Your task to perform on an android device: visit the assistant section in the google photos Image 0: 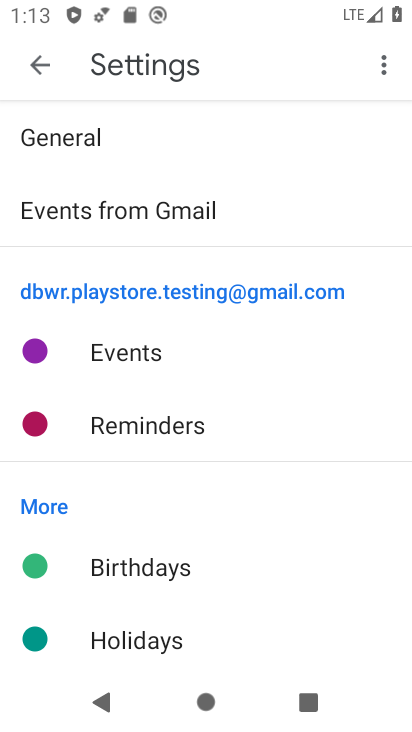
Step 0: press home button
Your task to perform on an android device: visit the assistant section in the google photos Image 1: 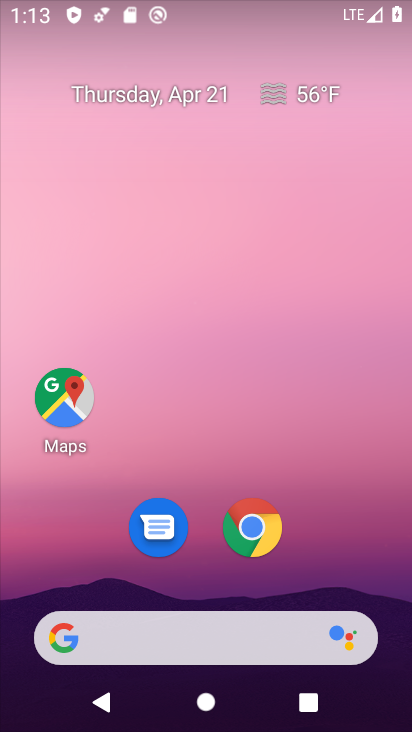
Step 1: drag from (210, 566) to (220, 164)
Your task to perform on an android device: visit the assistant section in the google photos Image 2: 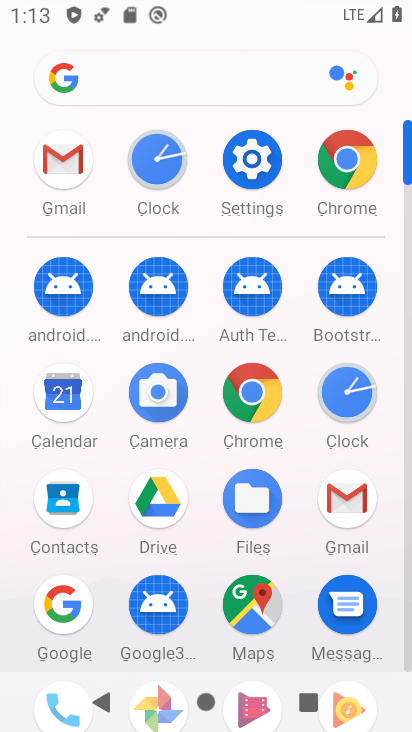
Step 2: drag from (204, 612) to (216, 414)
Your task to perform on an android device: visit the assistant section in the google photos Image 3: 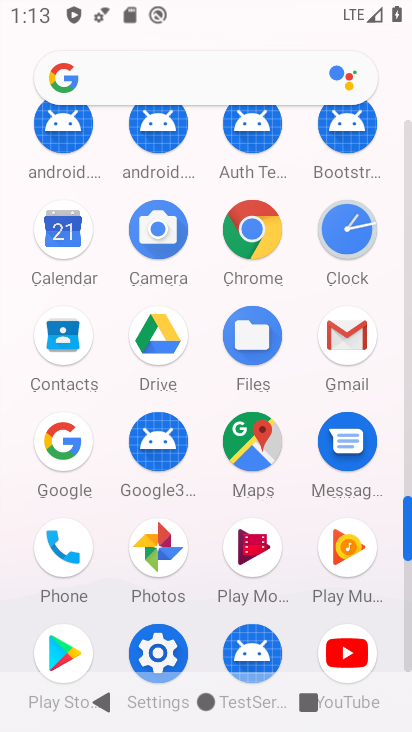
Step 3: click (168, 544)
Your task to perform on an android device: visit the assistant section in the google photos Image 4: 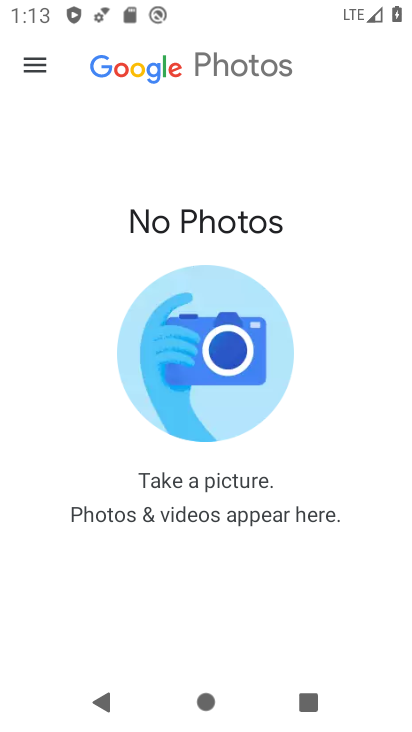
Step 4: click (28, 62)
Your task to perform on an android device: visit the assistant section in the google photos Image 5: 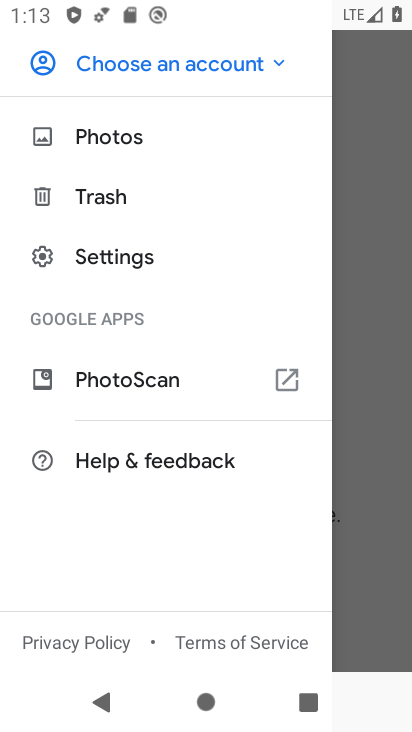
Step 5: click (212, 70)
Your task to perform on an android device: visit the assistant section in the google photos Image 6: 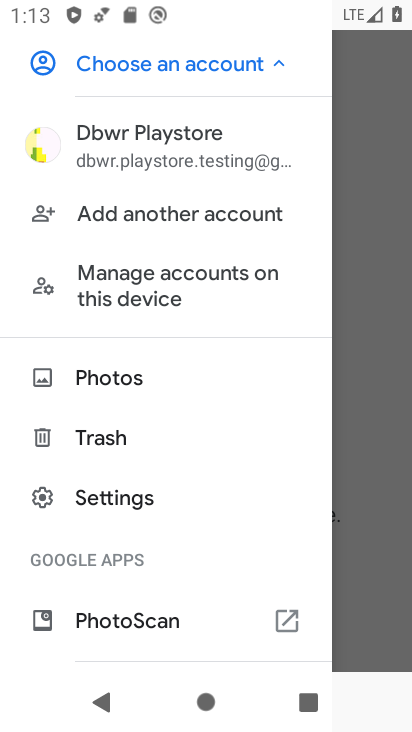
Step 6: click (189, 128)
Your task to perform on an android device: visit the assistant section in the google photos Image 7: 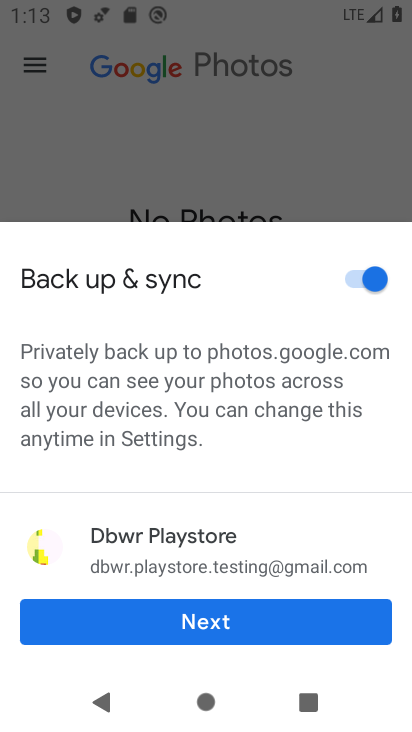
Step 7: click (177, 624)
Your task to perform on an android device: visit the assistant section in the google photos Image 8: 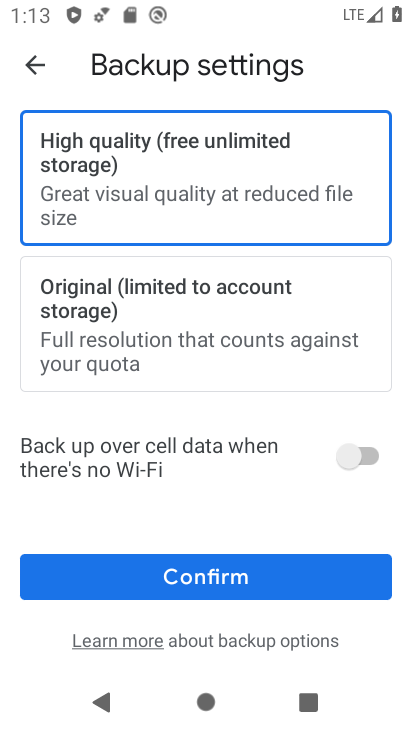
Step 8: click (186, 563)
Your task to perform on an android device: visit the assistant section in the google photos Image 9: 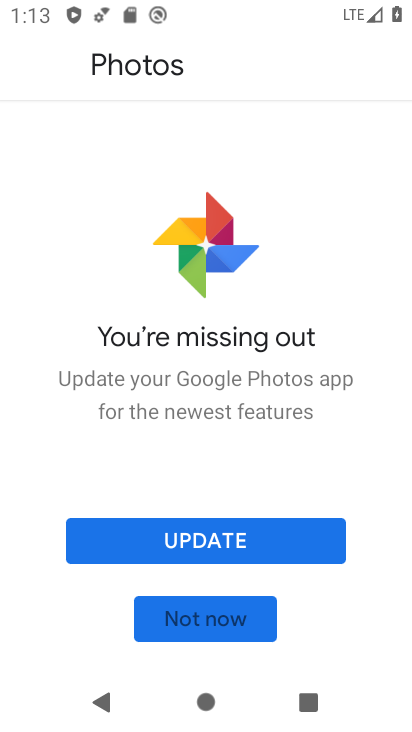
Step 9: click (177, 545)
Your task to perform on an android device: visit the assistant section in the google photos Image 10: 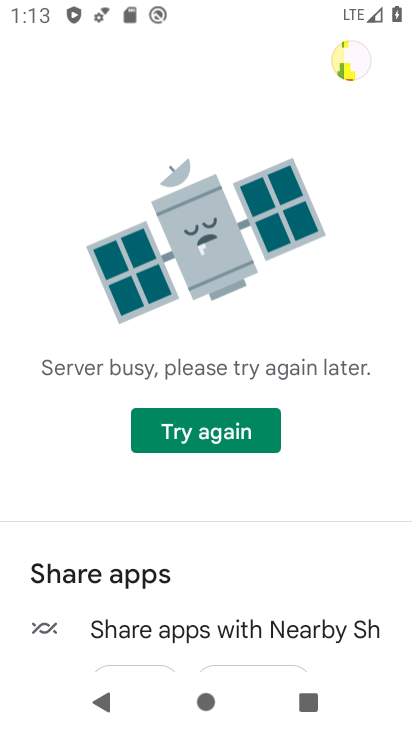
Step 10: click (234, 545)
Your task to perform on an android device: visit the assistant section in the google photos Image 11: 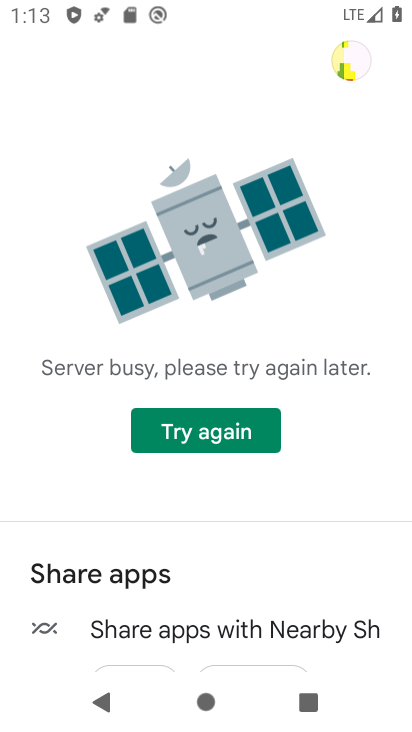
Step 11: task complete